Your task to perform on an android device: snooze an email in the gmail app Image 0: 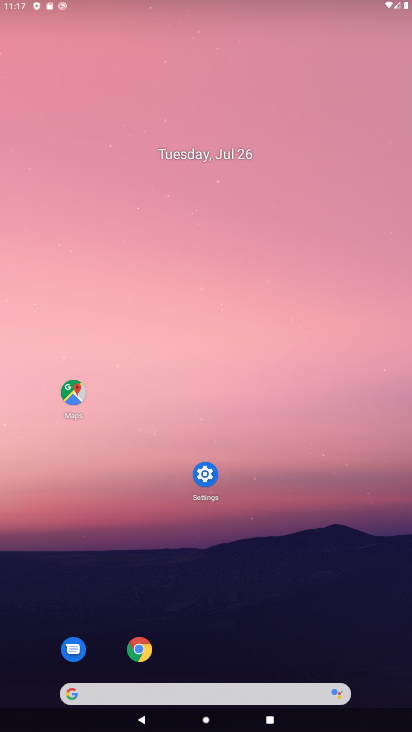
Step 0: drag from (247, 692) to (161, 115)
Your task to perform on an android device: snooze an email in the gmail app Image 1: 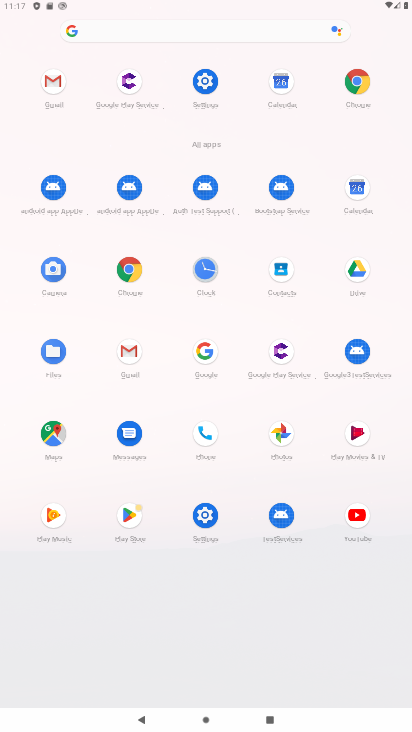
Step 1: click (120, 349)
Your task to perform on an android device: snooze an email in the gmail app Image 2: 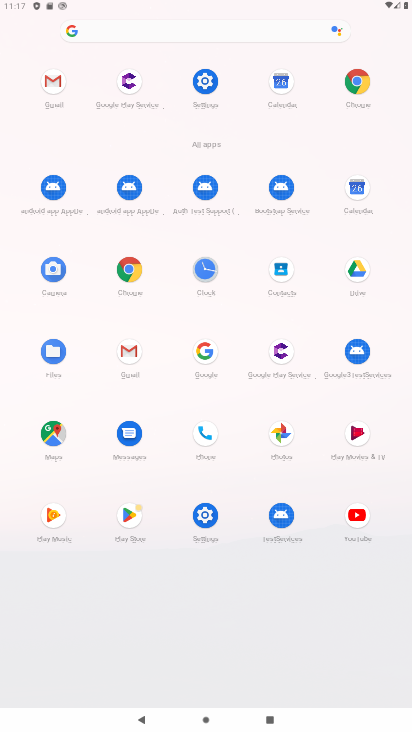
Step 2: click (123, 351)
Your task to perform on an android device: snooze an email in the gmail app Image 3: 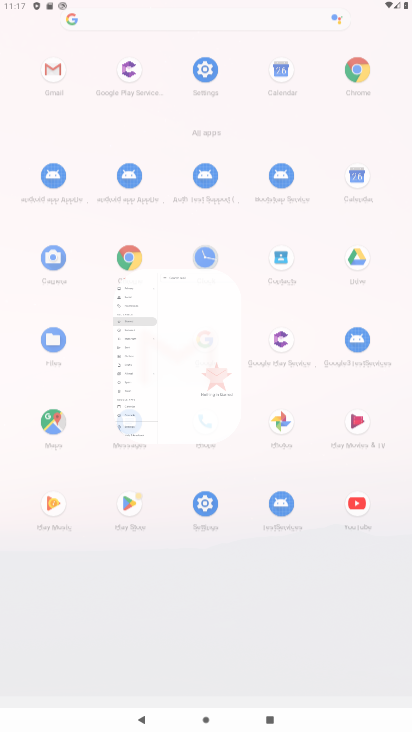
Step 3: click (124, 351)
Your task to perform on an android device: snooze an email in the gmail app Image 4: 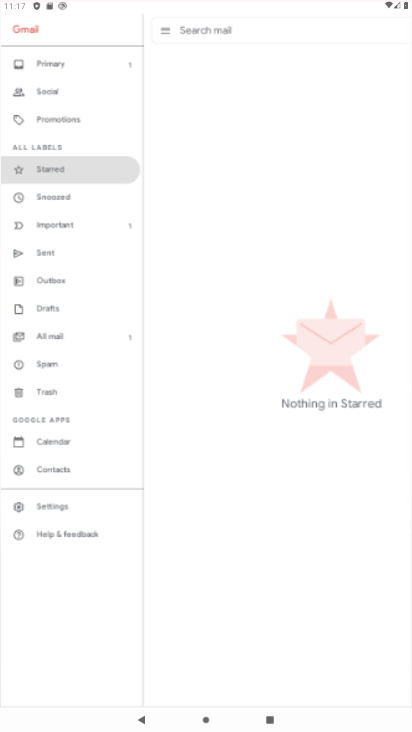
Step 4: click (129, 344)
Your task to perform on an android device: snooze an email in the gmail app Image 5: 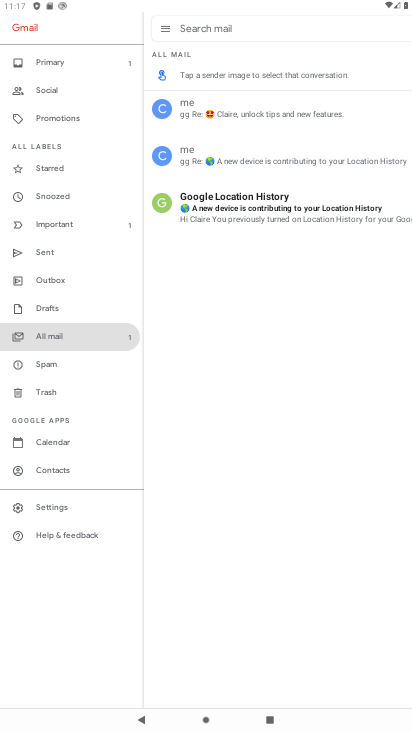
Step 5: click (124, 343)
Your task to perform on an android device: snooze an email in the gmail app Image 6: 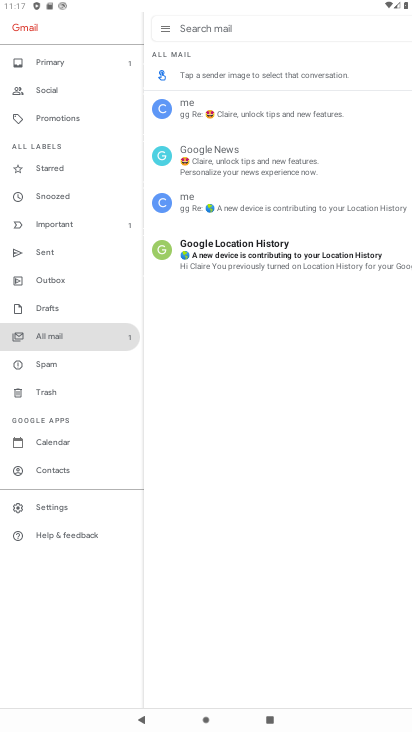
Step 6: click (50, 323)
Your task to perform on an android device: snooze an email in the gmail app Image 7: 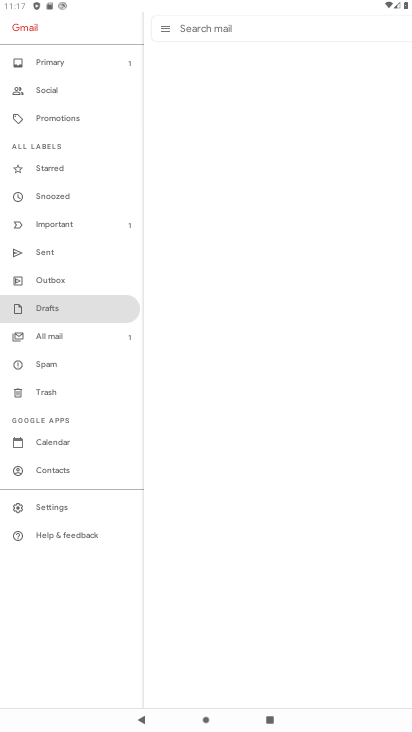
Step 7: click (271, 173)
Your task to perform on an android device: snooze an email in the gmail app Image 8: 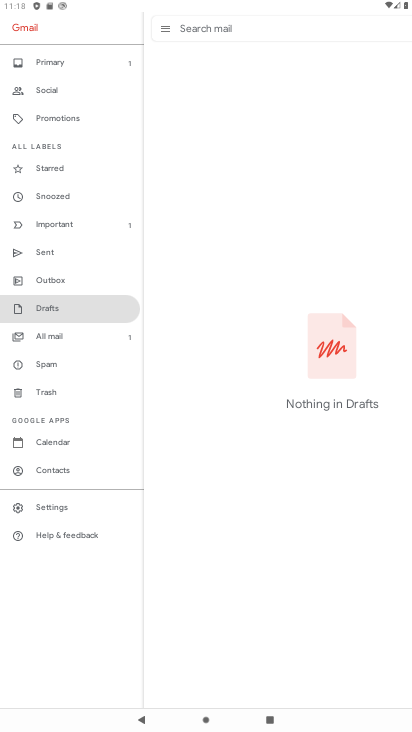
Step 8: click (42, 339)
Your task to perform on an android device: snooze an email in the gmail app Image 9: 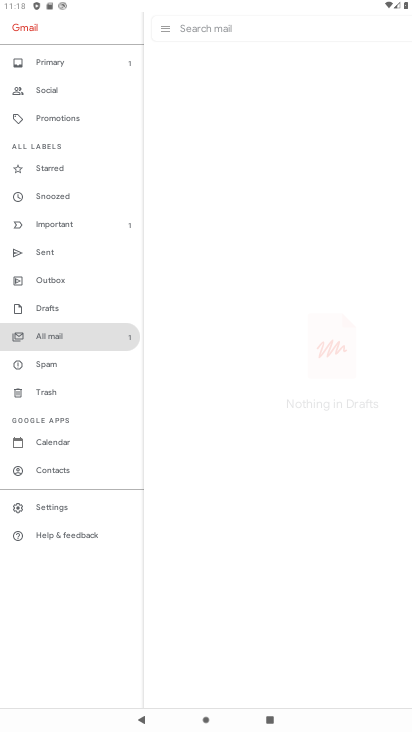
Step 9: click (42, 339)
Your task to perform on an android device: snooze an email in the gmail app Image 10: 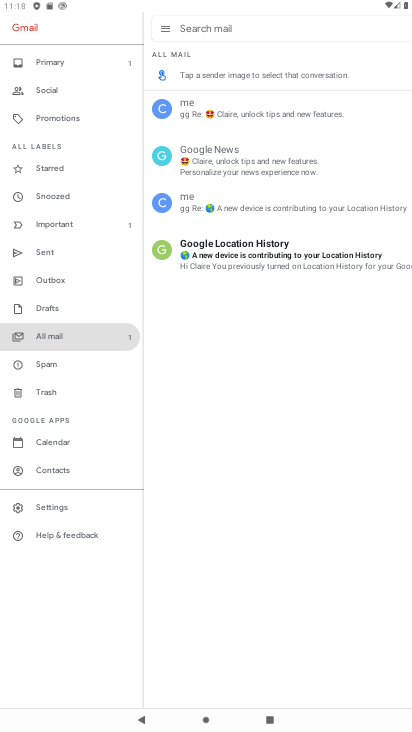
Step 10: click (249, 166)
Your task to perform on an android device: snooze an email in the gmail app Image 11: 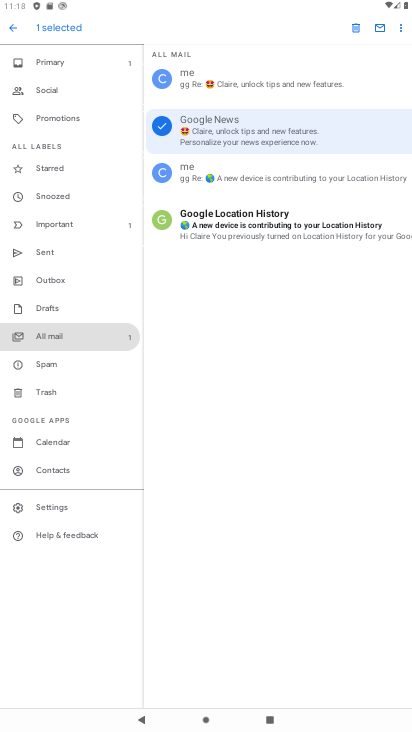
Step 11: click (401, 25)
Your task to perform on an android device: snooze an email in the gmail app Image 12: 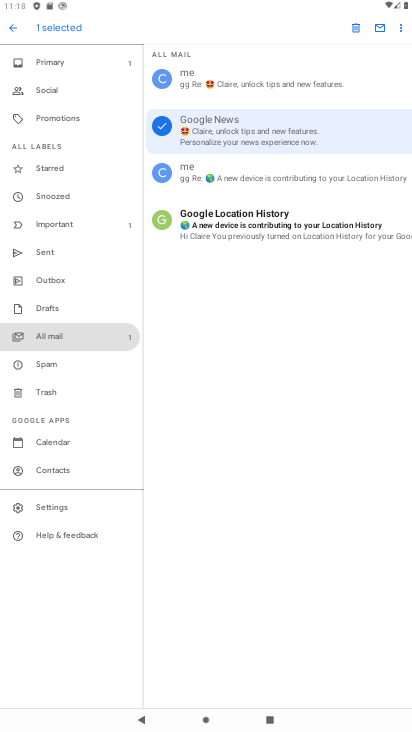
Step 12: click (400, 25)
Your task to perform on an android device: snooze an email in the gmail app Image 13: 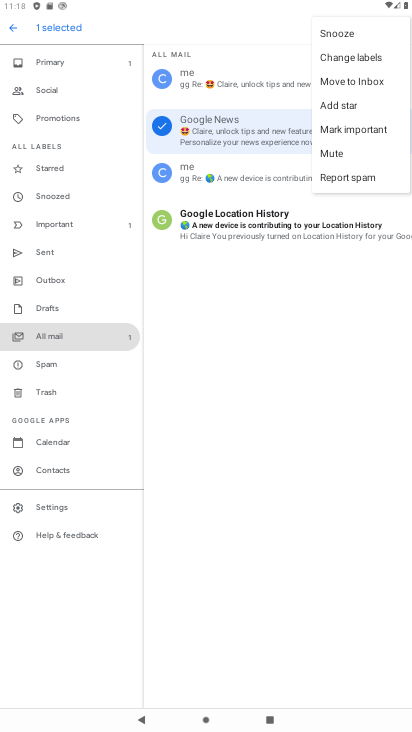
Step 13: click (334, 28)
Your task to perform on an android device: snooze an email in the gmail app Image 14: 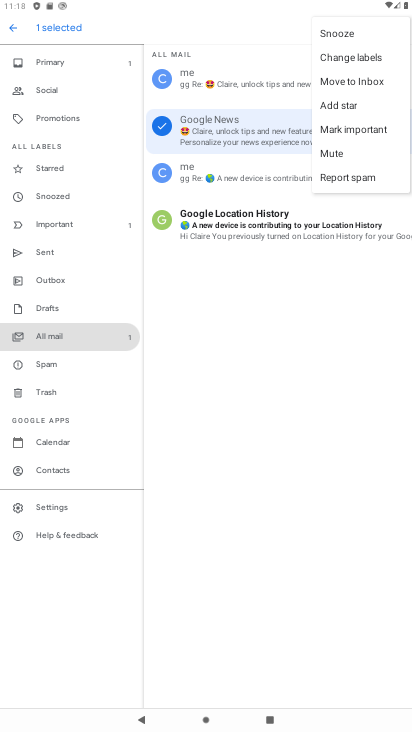
Step 14: click (335, 30)
Your task to perform on an android device: snooze an email in the gmail app Image 15: 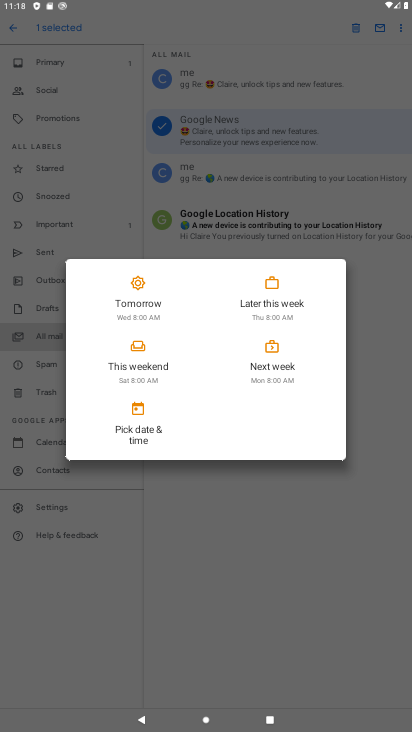
Step 15: click (263, 296)
Your task to perform on an android device: snooze an email in the gmail app Image 16: 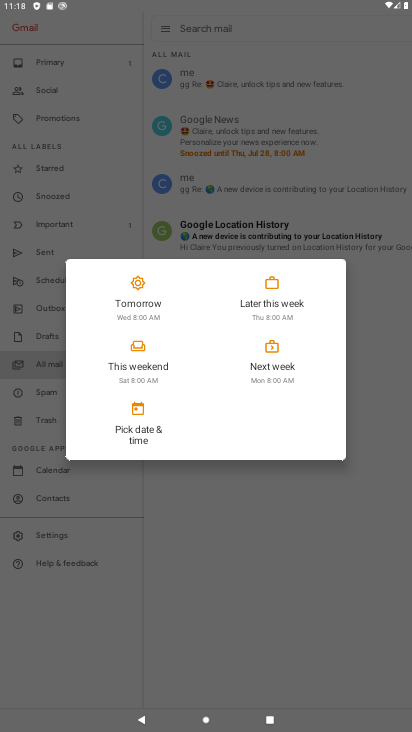
Step 16: task complete